Your task to perform on an android device: Open accessibility settings Image 0: 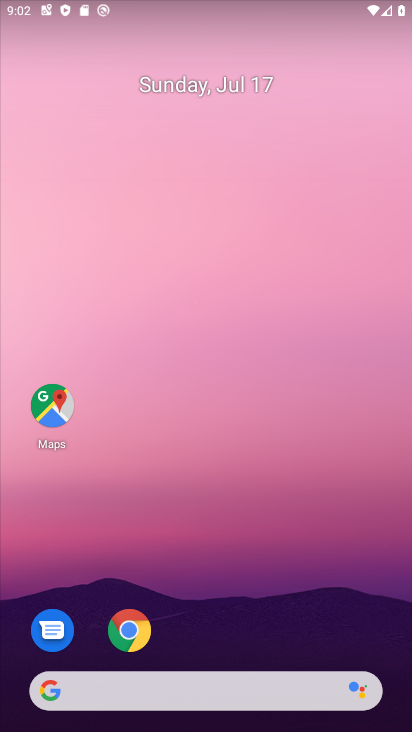
Step 0: drag from (275, 670) to (289, 12)
Your task to perform on an android device: Open accessibility settings Image 1: 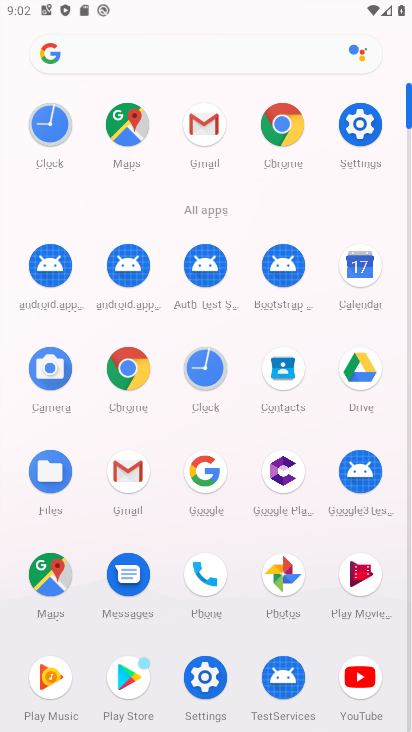
Step 1: click (348, 124)
Your task to perform on an android device: Open accessibility settings Image 2: 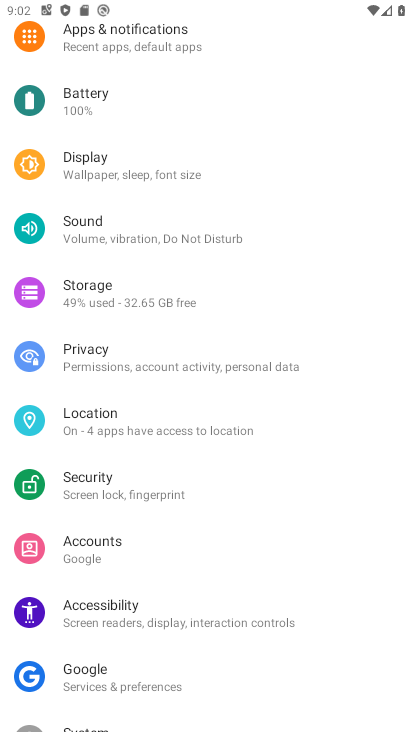
Step 2: click (148, 609)
Your task to perform on an android device: Open accessibility settings Image 3: 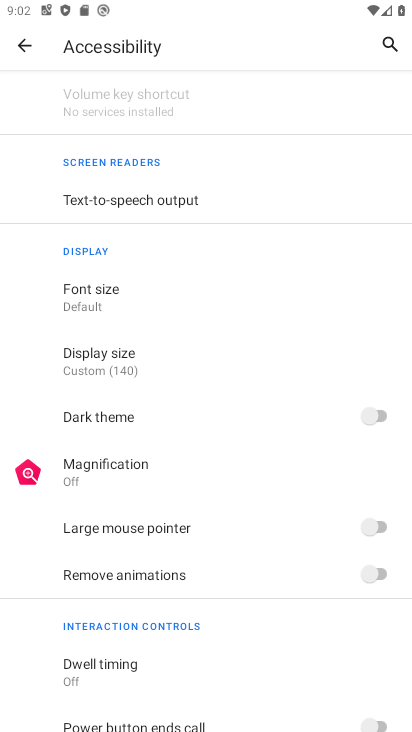
Step 3: task complete